Your task to perform on an android device: toggle show notifications on the lock screen Image 0: 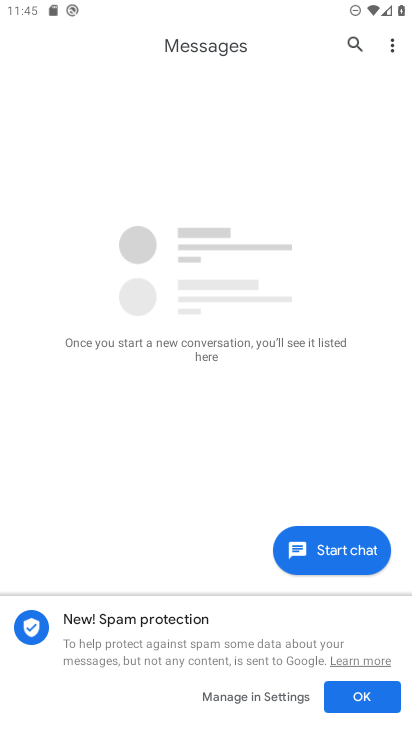
Step 0: press home button
Your task to perform on an android device: toggle show notifications on the lock screen Image 1: 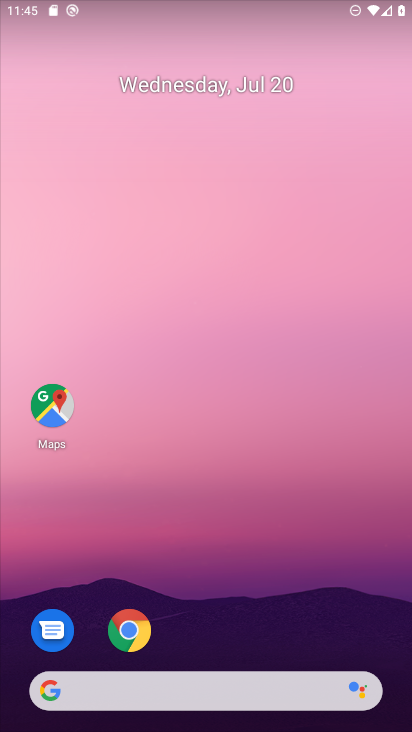
Step 1: drag from (264, 661) to (216, 219)
Your task to perform on an android device: toggle show notifications on the lock screen Image 2: 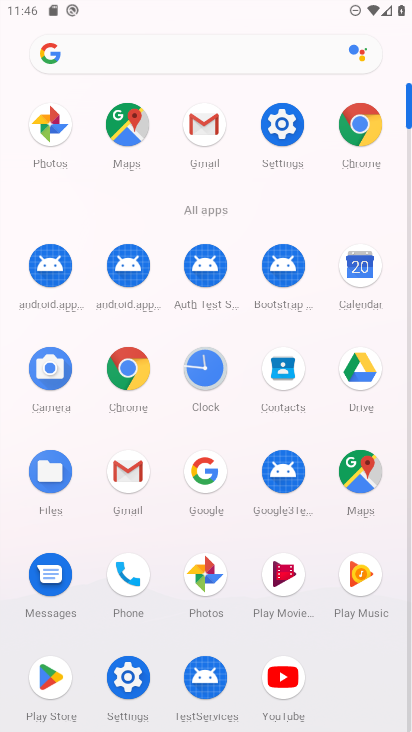
Step 2: click (136, 678)
Your task to perform on an android device: toggle show notifications on the lock screen Image 3: 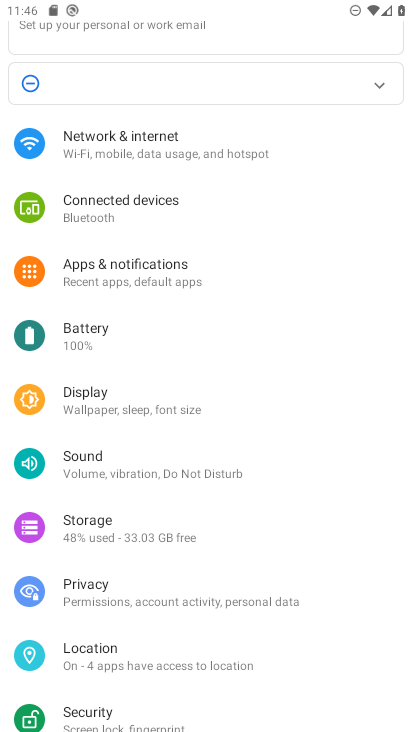
Step 3: click (153, 283)
Your task to perform on an android device: toggle show notifications on the lock screen Image 4: 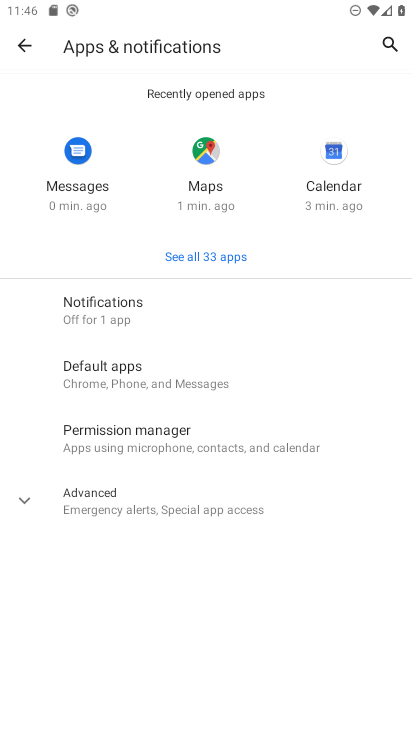
Step 4: click (126, 314)
Your task to perform on an android device: toggle show notifications on the lock screen Image 5: 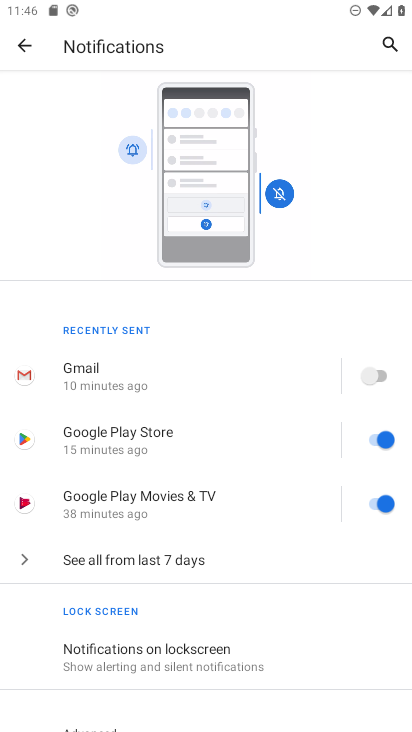
Step 5: drag from (199, 614) to (203, 456)
Your task to perform on an android device: toggle show notifications on the lock screen Image 6: 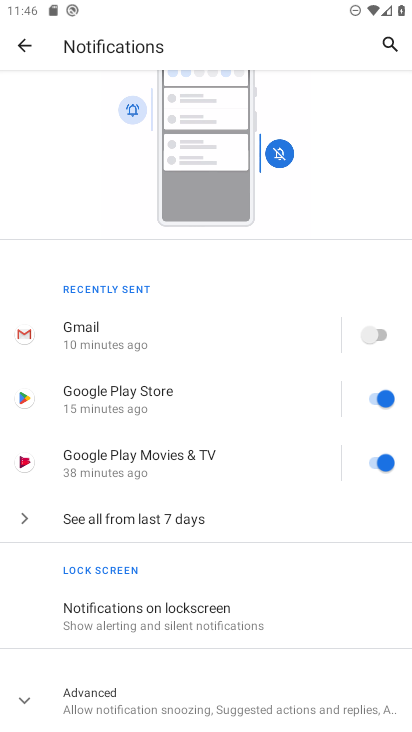
Step 6: click (161, 609)
Your task to perform on an android device: toggle show notifications on the lock screen Image 7: 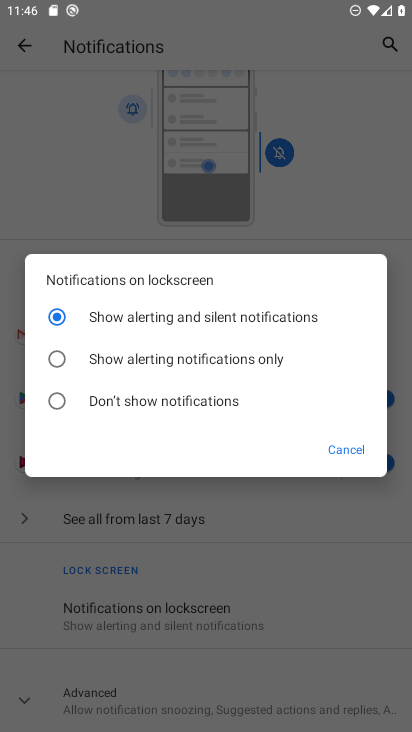
Step 7: click (61, 405)
Your task to perform on an android device: toggle show notifications on the lock screen Image 8: 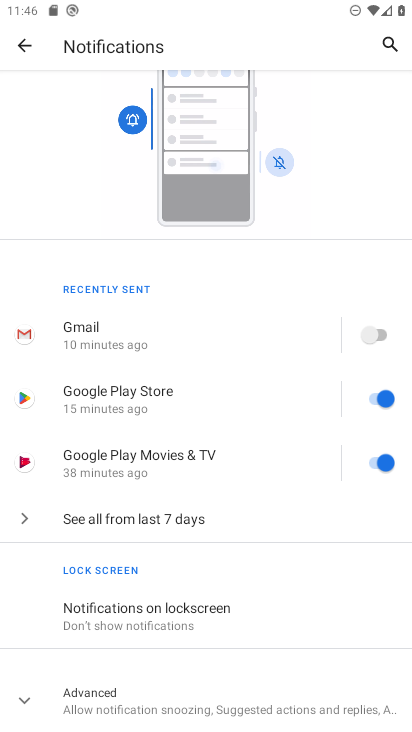
Step 8: task complete